Your task to perform on an android device: change notifications settings Image 0: 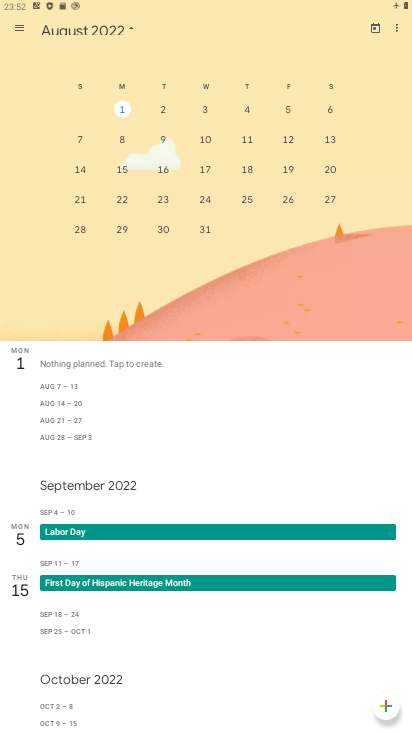
Step 0: press home button
Your task to perform on an android device: change notifications settings Image 1: 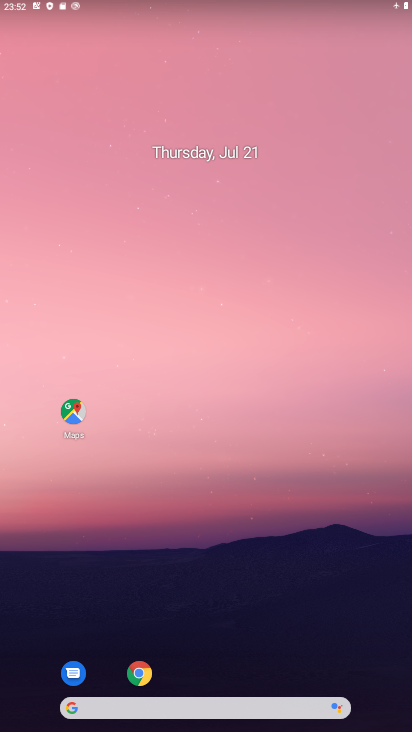
Step 1: click (219, 126)
Your task to perform on an android device: change notifications settings Image 2: 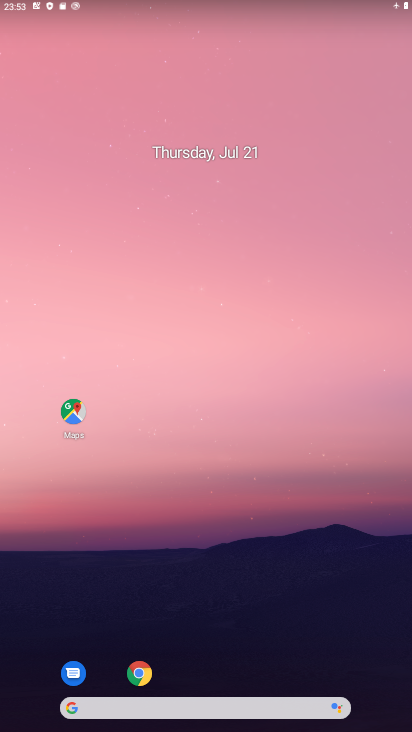
Step 2: drag from (204, 605) to (269, 22)
Your task to perform on an android device: change notifications settings Image 3: 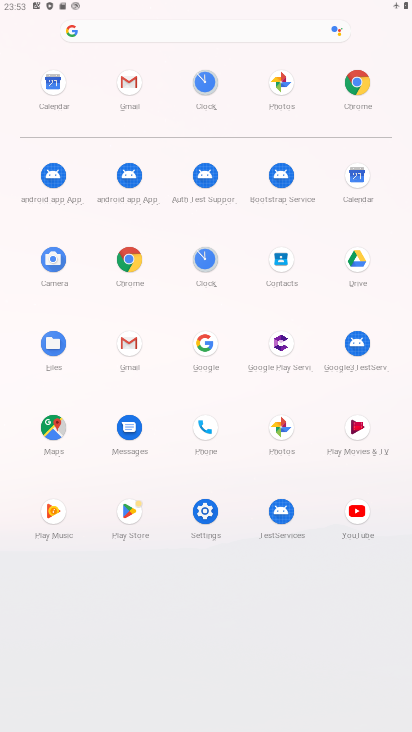
Step 3: click (188, 511)
Your task to perform on an android device: change notifications settings Image 4: 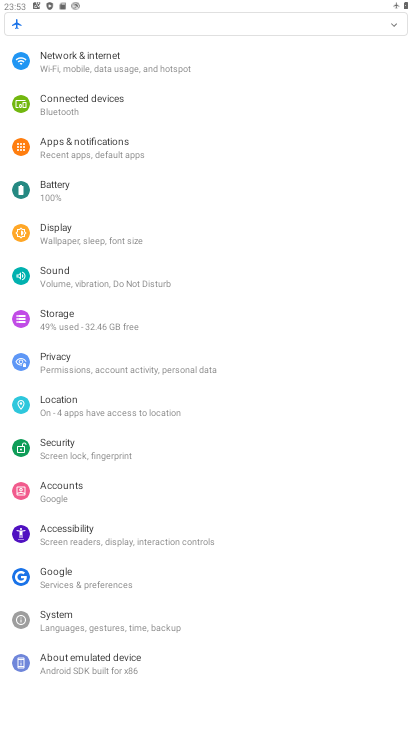
Step 4: click (123, 149)
Your task to perform on an android device: change notifications settings Image 5: 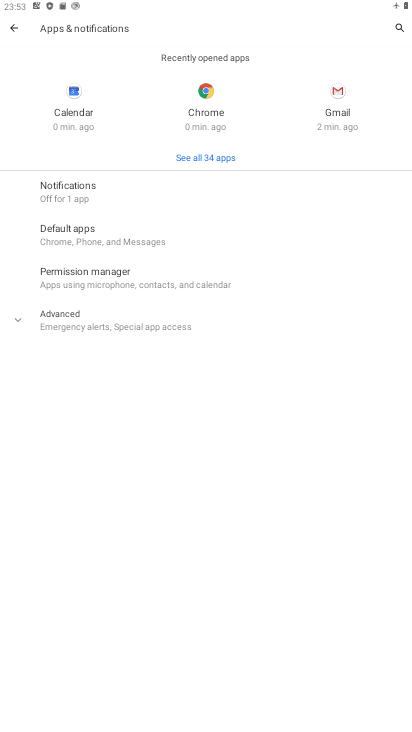
Step 5: click (127, 189)
Your task to perform on an android device: change notifications settings Image 6: 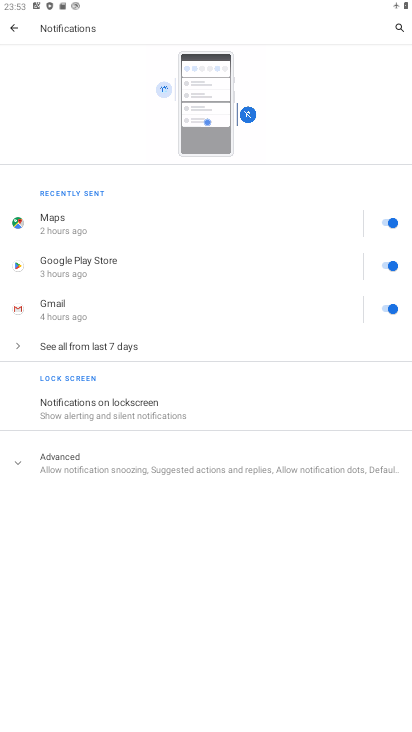
Step 6: click (210, 418)
Your task to perform on an android device: change notifications settings Image 7: 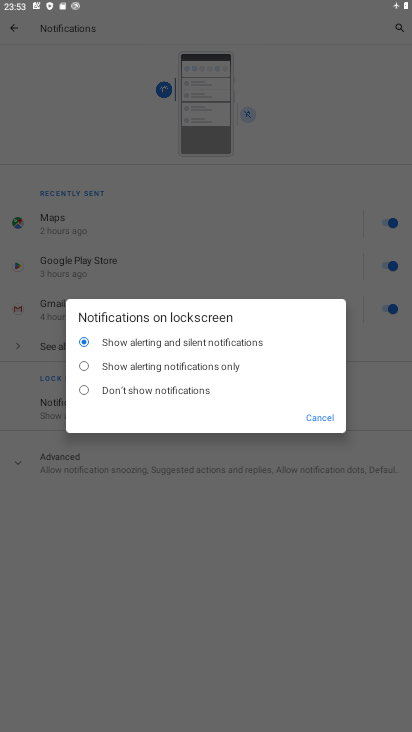
Step 7: click (209, 411)
Your task to perform on an android device: change notifications settings Image 8: 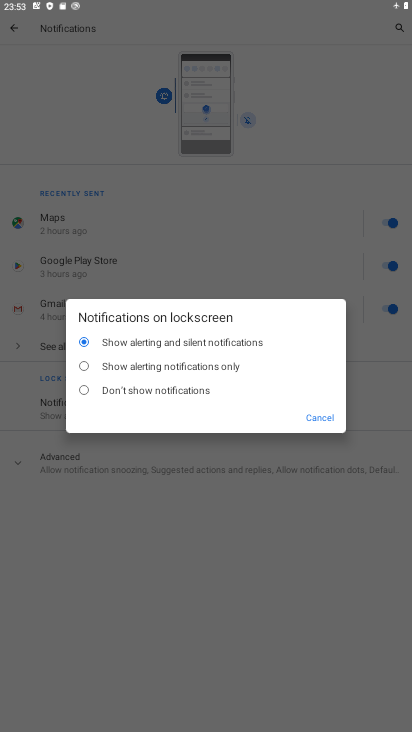
Step 8: click (168, 389)
Your task to perform on an android device: change notifications settings Image 9: 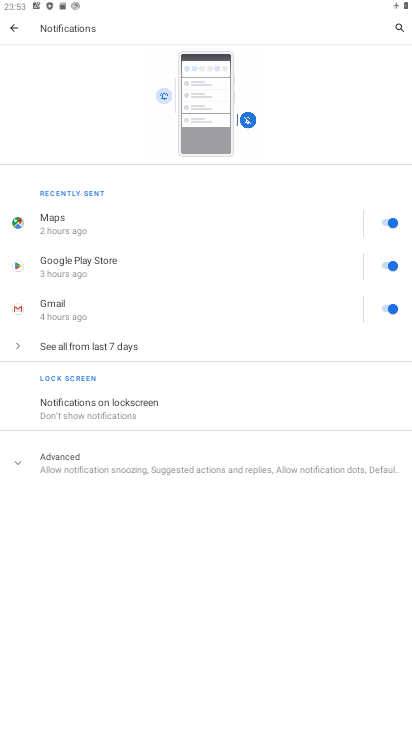
Step 9: task complete